Your task to perform on an android device: Open calendar and show me the fourth week of next month Image 0: 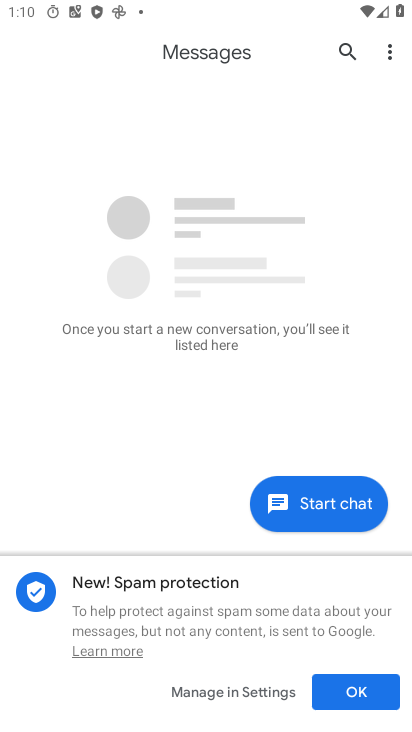
Step 0: press home button
Your task to perform on an android device: Open calendar and show me the fourth week of next month Image 1: 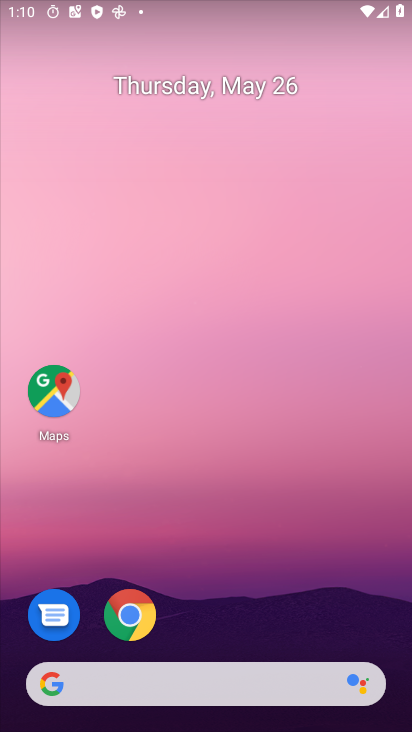
Step 1: drag from (224, 650) to (174, 304)
Your task to perform on an android device: Open calendar and show me the fourth week of next month Image 2: 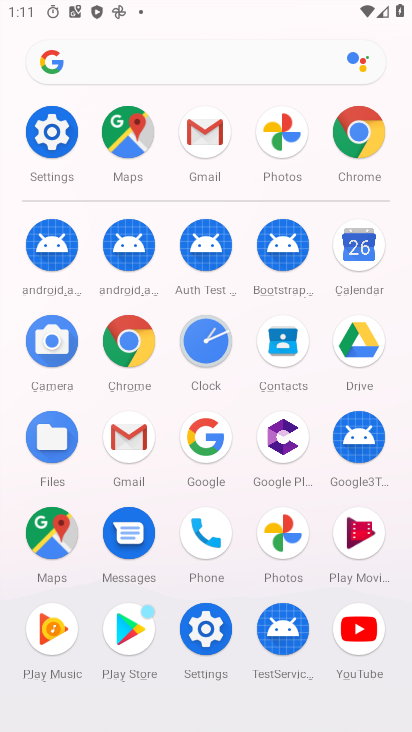
Step 2: click (362, 250)
Your task to perform on an android device: Open calendar and show me the fourth week of next month Image 3: 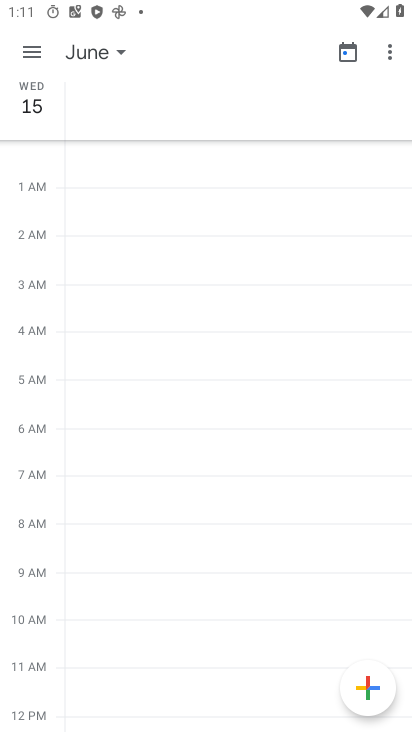
Step 3: click (72, 57)
Your task to perform on an android device: Open calendar and show me the fourth week of next month Image 4: 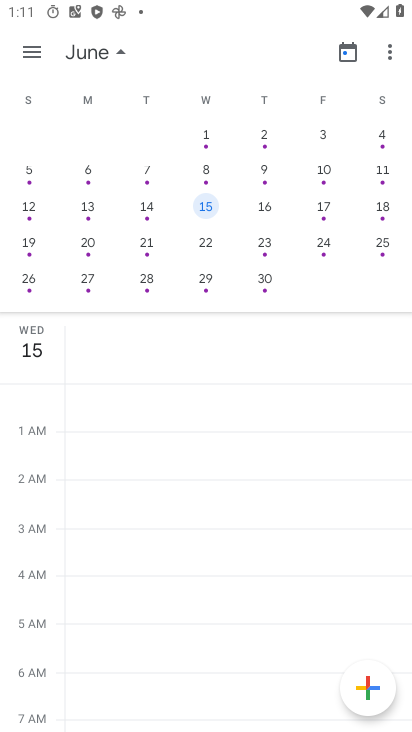
Step 4: click (32, 50)
Your task to perform on an android device: Open calendar and show me the fourth week of next month Image 5: 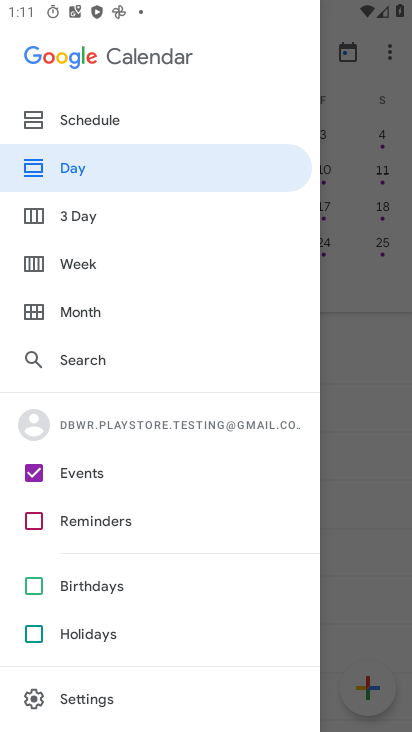
Step 5: click (95, 279)
Your task to perform on an android device: Open calendar and show me the fourth week of next month Image 6: 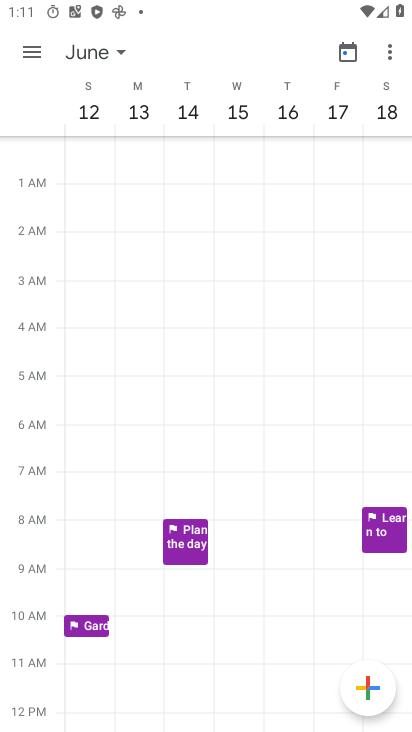
Step 6: click (114, 52)
Your task to perform on an android device: Open calendar and show me the fourth week of next month Image 7: 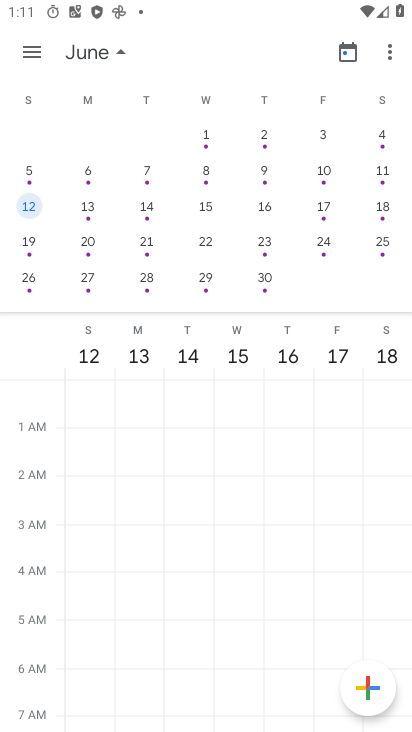
Step 7: drag from (380, 249) to (78, 270)
Your task to perform on an android device: Open calendar and show me the fourth week of next month Image 8: 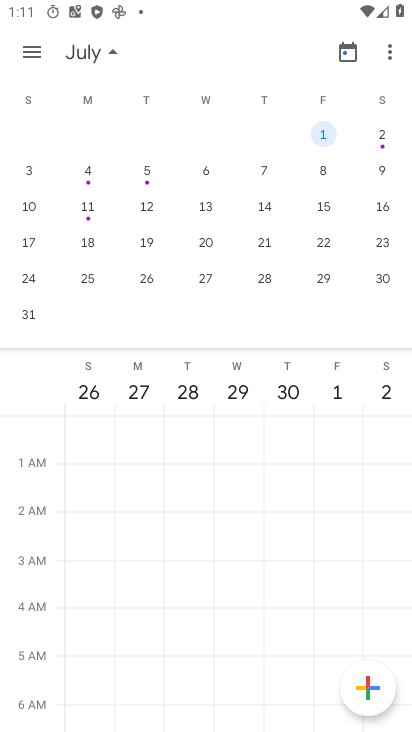
Step 8: drag from (50, 244) to (410, 297)
Your task to perform on an android device: Open calendar and show me the fourth week of next month Image 9: 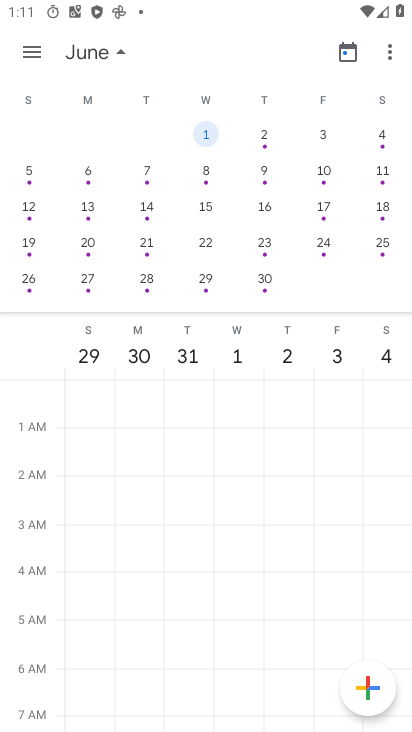
Step 9: click (215, 242)
Your task to perform on an android device: Open calendar and show me the fourth week of next month Image 10: 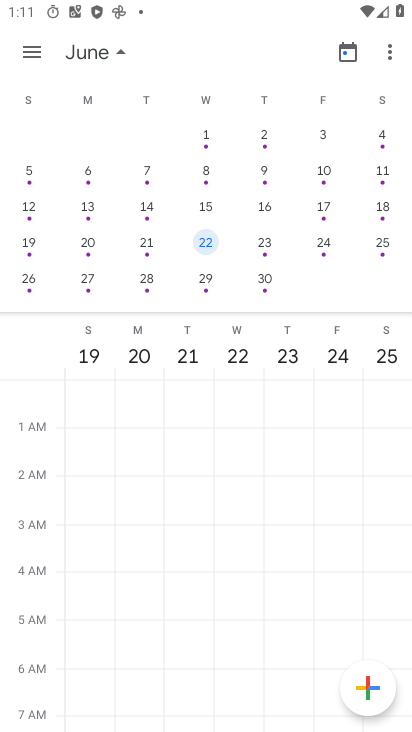
Step 10: click (128, 61)
Your task to perform on an android device: Open calendar and show me the fourth week of next month Image 11: 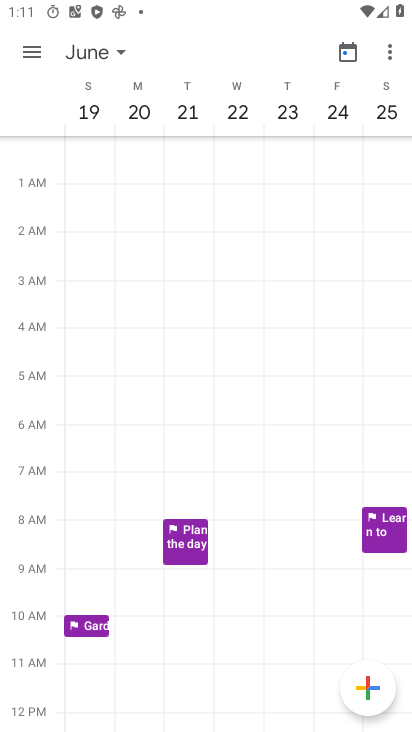
Step 11: task complete